Your task to perform on an android device: turn off location history Image 0: 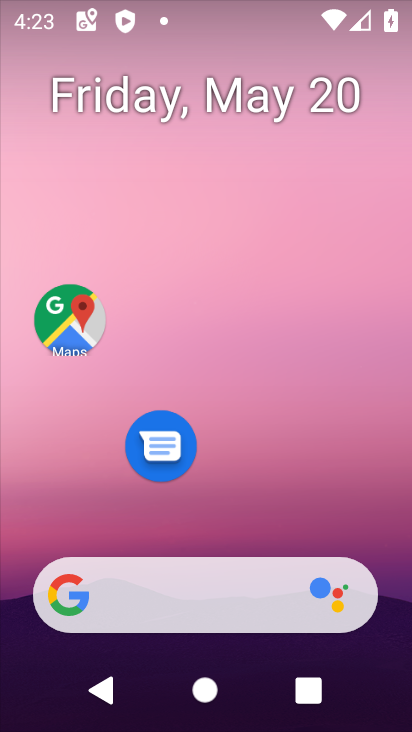
Step 0: drag from (233, 513) to (279, 82)
Your task to perform on an android device: turn off location history Image 1: 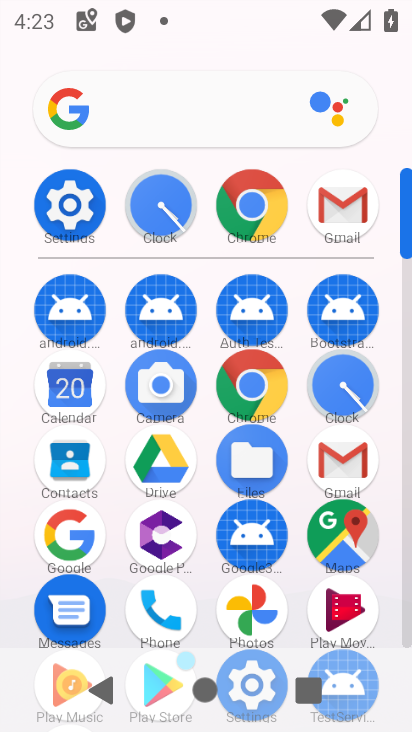
Step 1: click (87, 207)
Your task to perform on an android device: turn off location history Image 2: 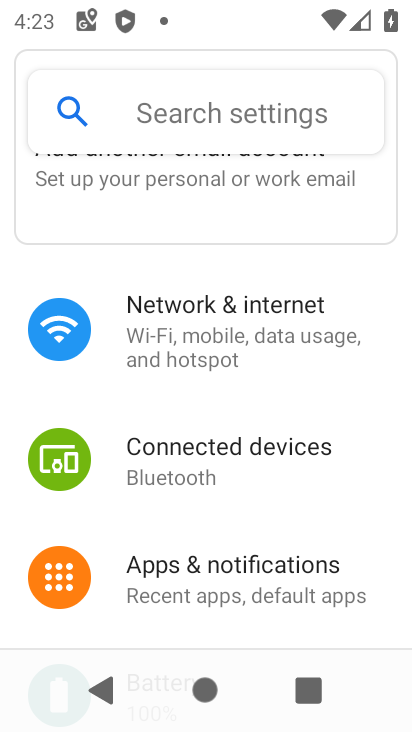
Step 2: drag from (239, 536) to (289, 177)
Your task to perform on an android device: turn off location history Image 3: 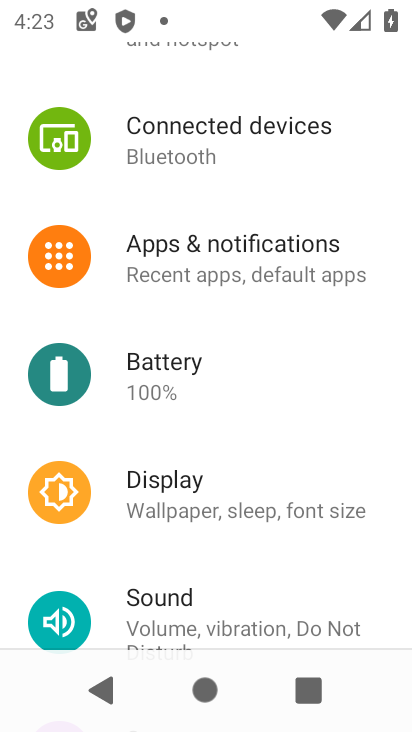
Step 3: drag from (232, 541) to (266, 173)
Your task to perform on an android device: turn off location history Image 4: 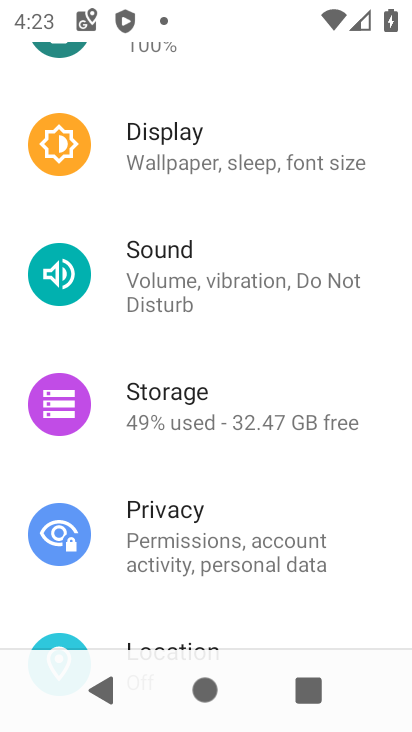
Step 4: drag from (210, 543) to (242, 235)
Your task to perform on an android device: turn off location history Image 5: 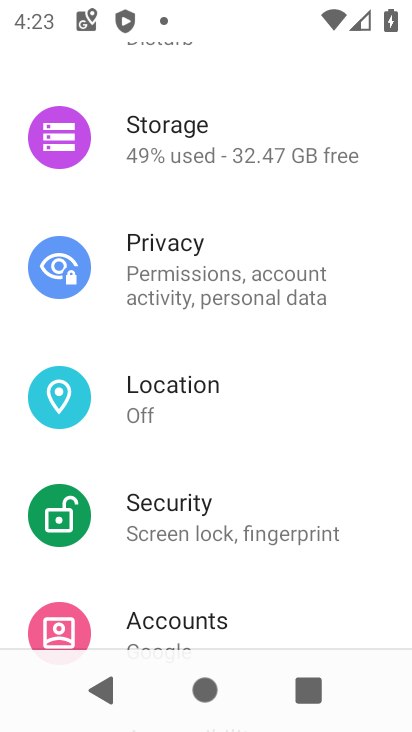
Step 5: click (229, 404)
Your task to perform on an android device: turn off location history Image 6: 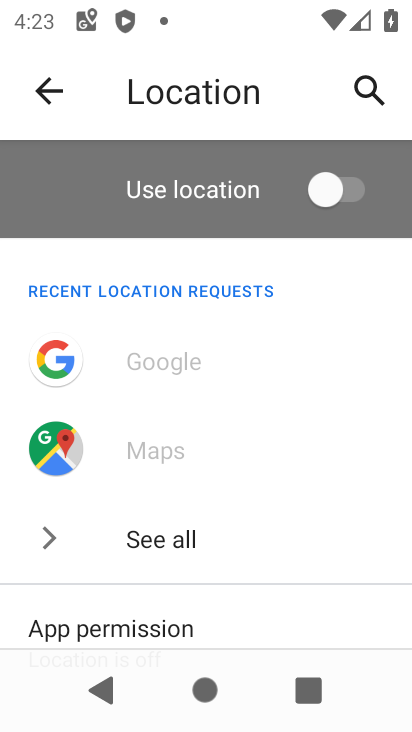
Step 6: drag from (186, 566) to (221, 196)
Your task to perform on an android device: turn off location history Image 7: 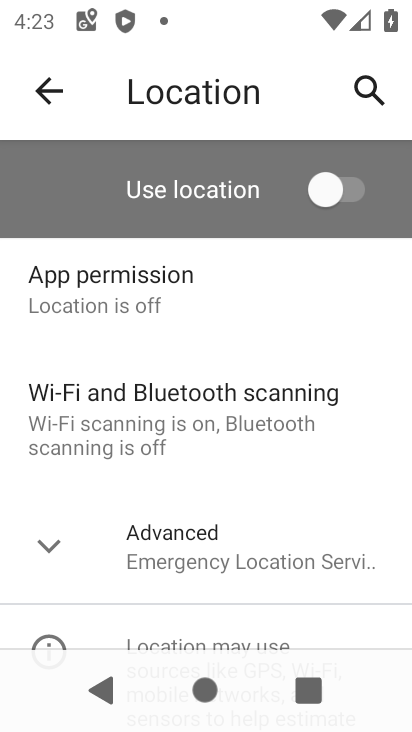
Step 7: click (197, 534)
Your task to perform on an android device: turn off location history Image 8: 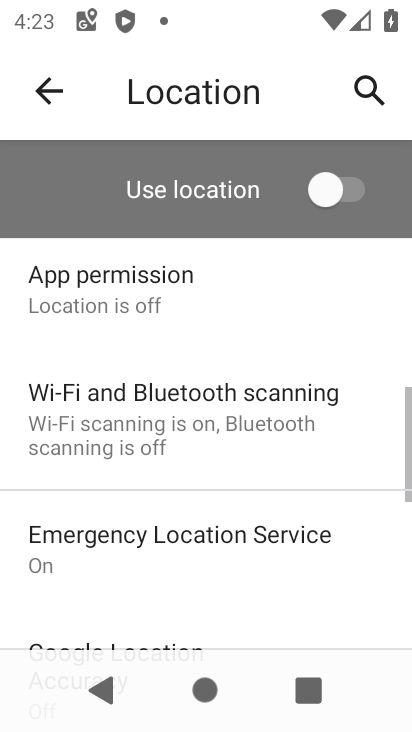
Step 8: drag from (194, 591) to (226, 390)
Your task to perform on an android device: turn off location history Image 9: 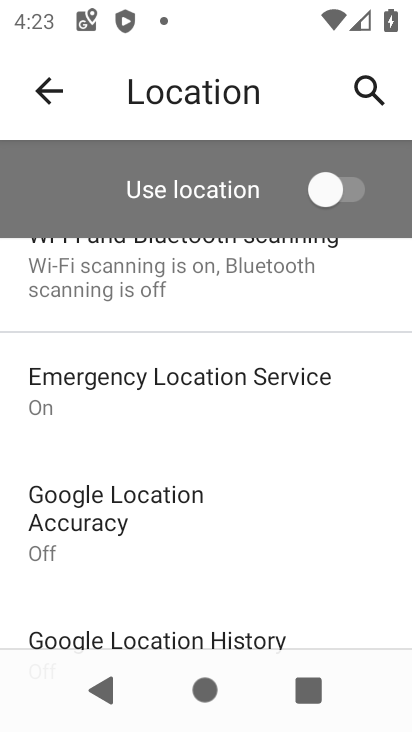
Step 9: drag from (194, 540) to (224, 344)
Your task to perform on an android device: turn off location history Image 10: 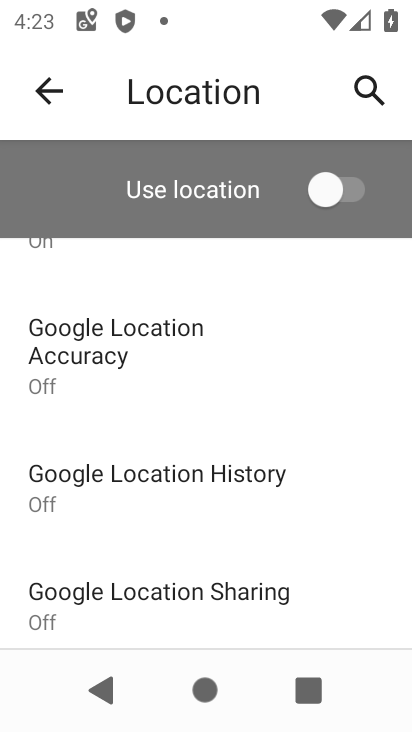
Step 10: click (217, 502)
Your task to perform on an android device: turn off location history Image 11: 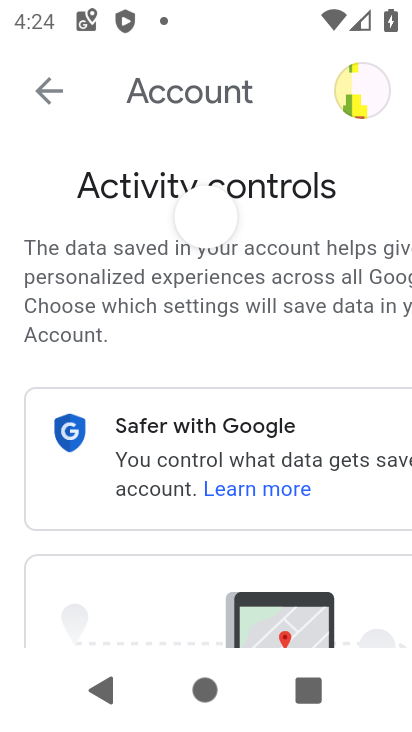
Step 11: drag from (218, 489) to (270, 110)
Your task to perform on an android device: turn off location history Image 12: 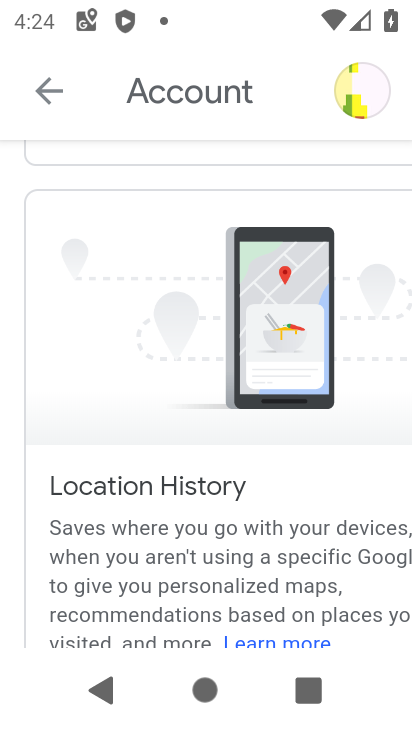
Step 12: drag from (265, 481) to (296, 66)
Your task to perform on an android device: turn off location history Image 13: 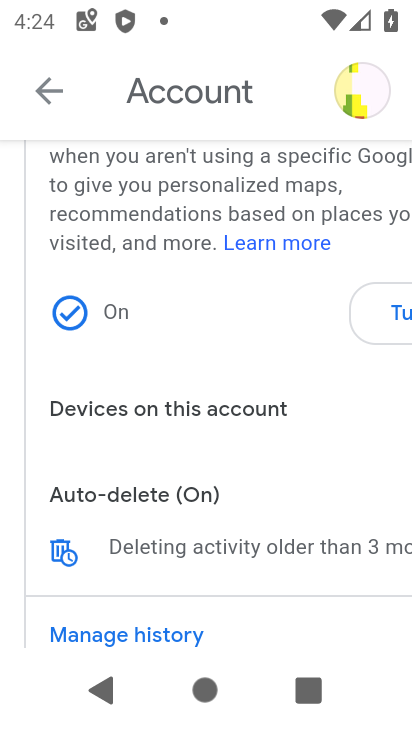
Step 13: click (382, 323)
Your task to perform on an android device: turn off location history Image 14: 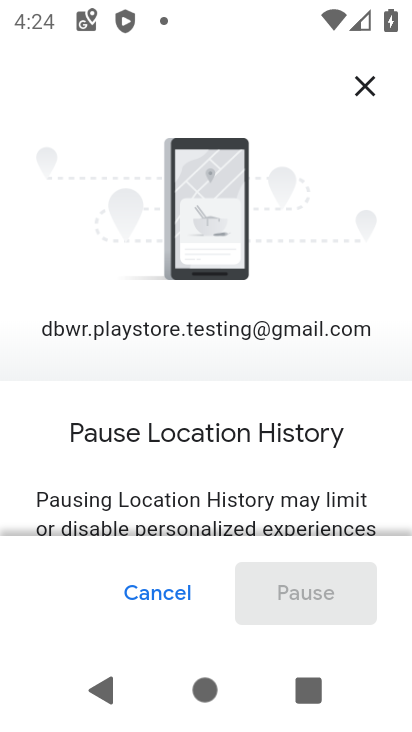
Step 14: drag from (204, 511) to (218, 97)
Your task to perform on an android device: turn off location history Image 15: 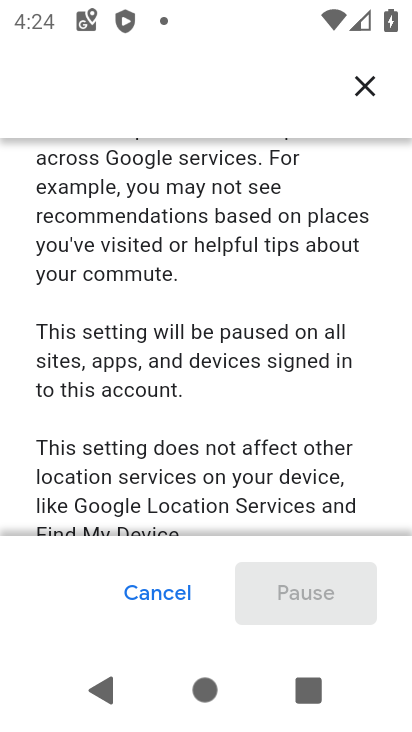
Step 15: drag from (216, 435) to (271, 90)
Your task to perform on an android device: turn off location history Image 16: 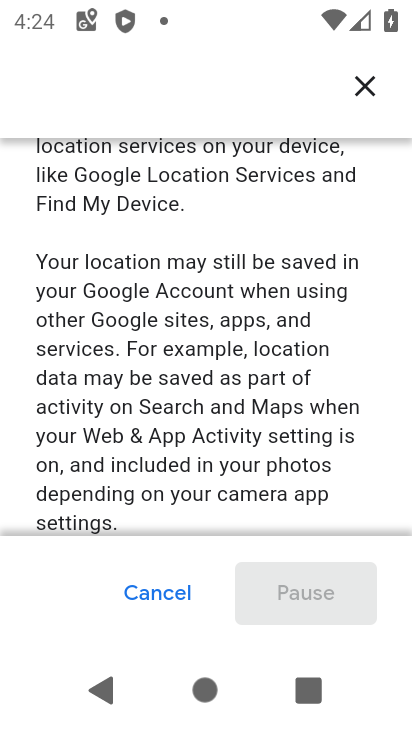
Step 16: drag from (192, 448) to (267, 11)
Your task to perform on an android device: turn off location history Image 17: 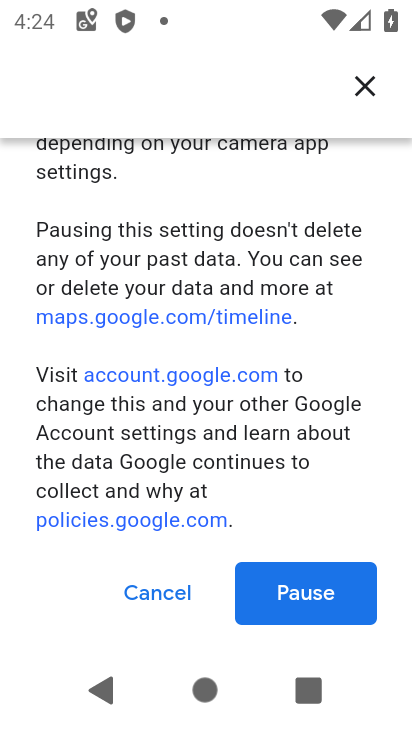
Step 17: drag from (226, 433) to (262, 97)
Your task to perform on an android device: turn off location history Image 18: 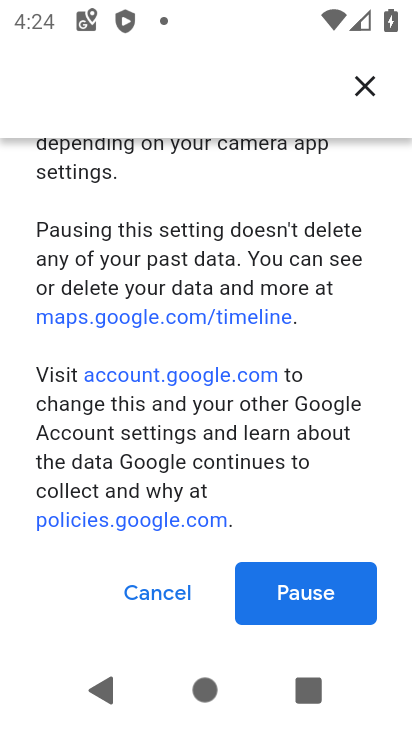
Step 18: click (299, 597)
Your task to perform on an android device: turn off location history Image 19: 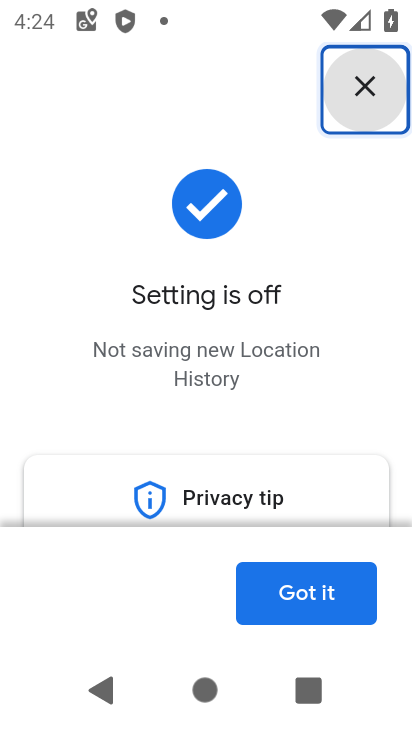
Step 19: click (286, 589)
Your task to perform on an android device: turn off location history Image 20: 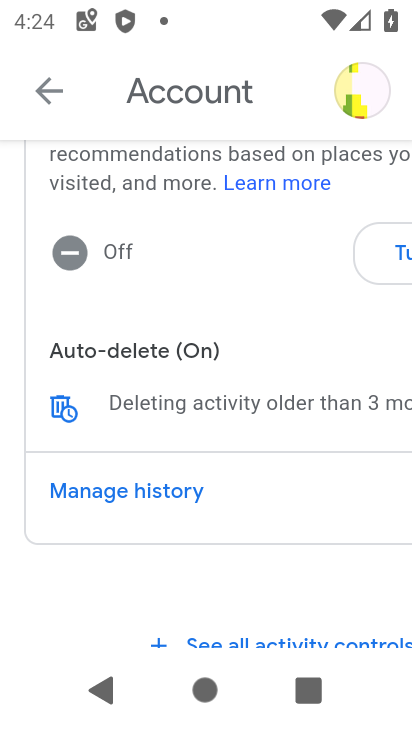
Step 20: task complete